Your task to perform on an android device: Go to Google Image 0: 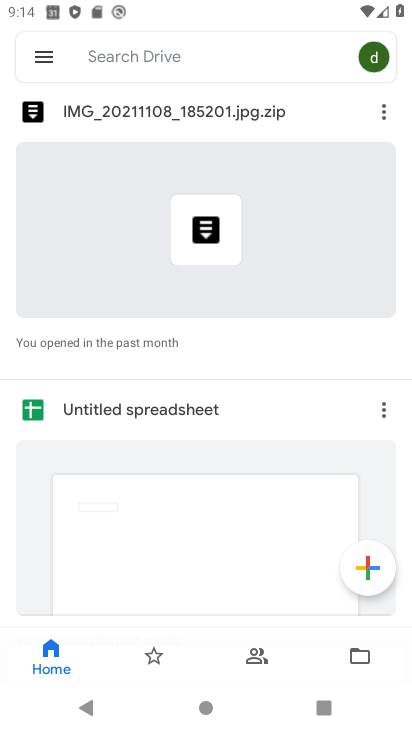
Step 0: press home button
Your task to perform on an android device: Go to Google Image 1: 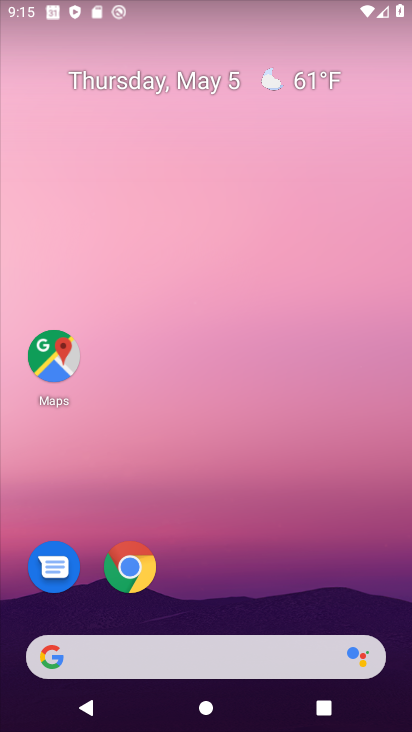
Step 1: drag from (223, 717) to (216, 287)
Your task to perform on an android device: Go to Google Image 2: 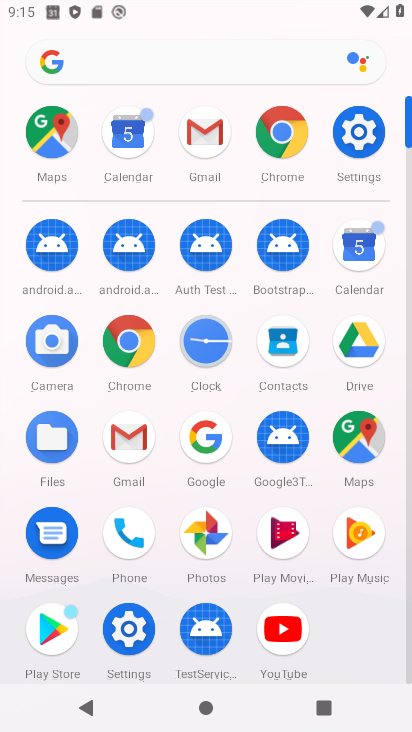
Step 2: click (209, 441)
Your task to perform on an android device: Go to Google Image 3: 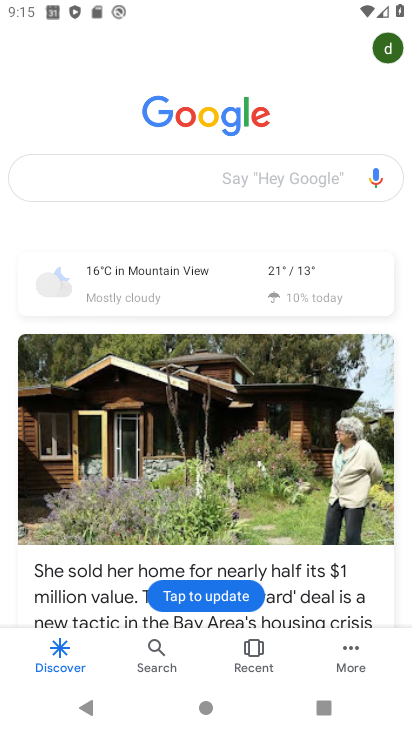
Step 3: task complete